Your task to perform on an android device: toggle show notifications on the lock screen Image 0: 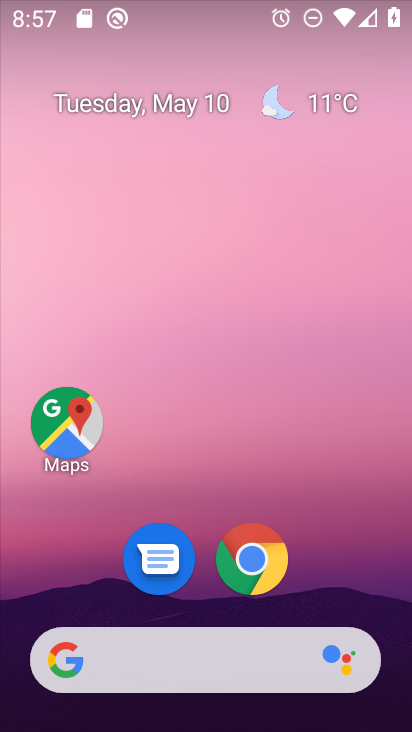
Step 0: drag from (214, 726) to (220, 121)
Your task to perform on an android device: toggle show notifications on the lock screen Image 1: 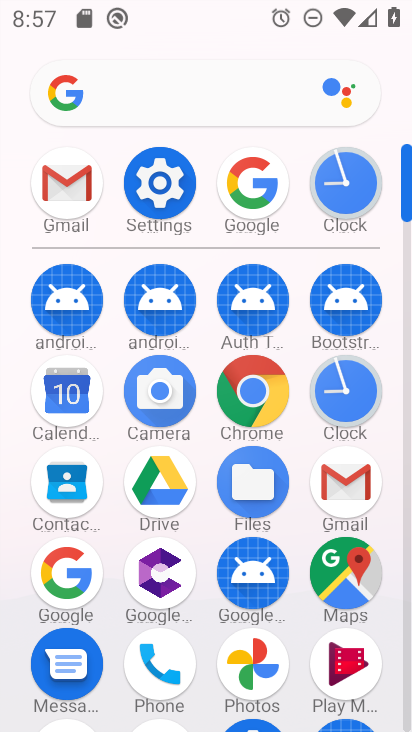
Step 1: click (151, 186)
Your task to perform on an android device: toggle show notifications on the lock screen Image 2: 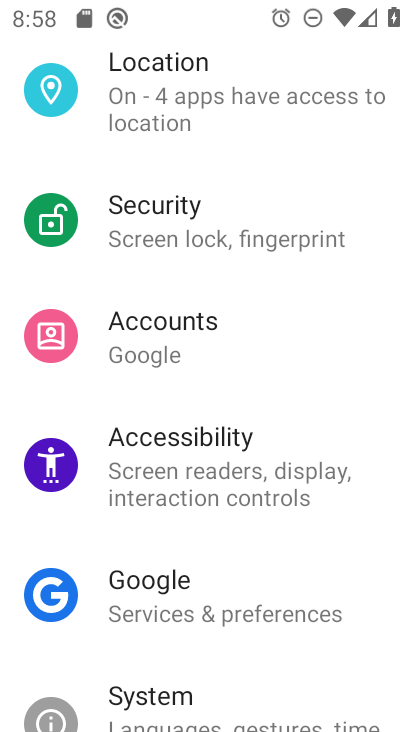
Step 2: drag from (226, 197) to (247, 529)
Your task to perform on an android device: toggle show notifications on the lock screen Image 3: 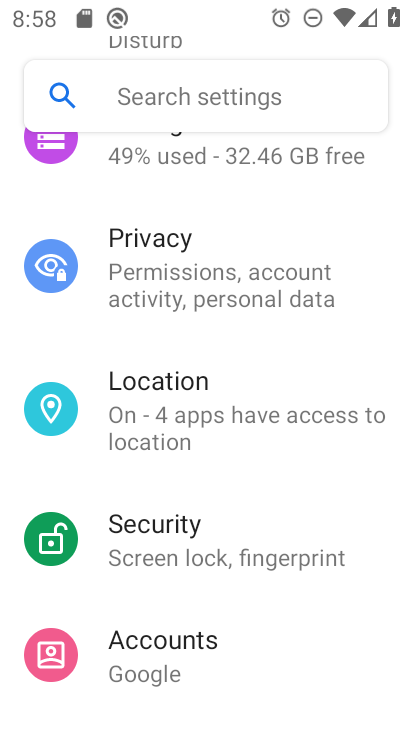
Step 3: drag from (278, 221) to (295, 595)
Your task to perform on an android device: toggle show notifications on the lock screen Image 4: 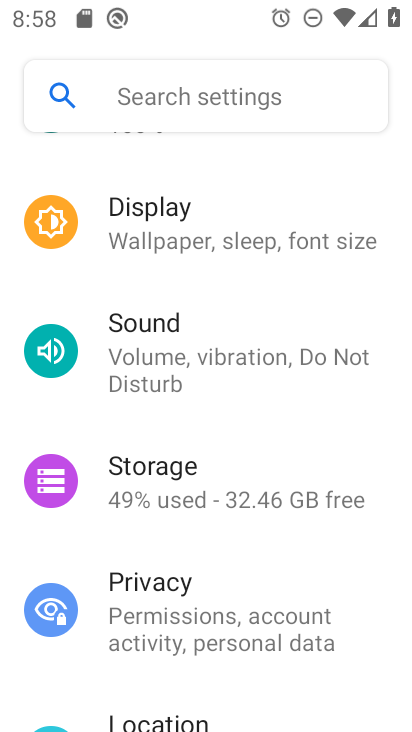
Step 4: drag from (287, 202) to (286, 593)
Your task to perform on an android device: toggle show notifications on the lock screen Image 5: 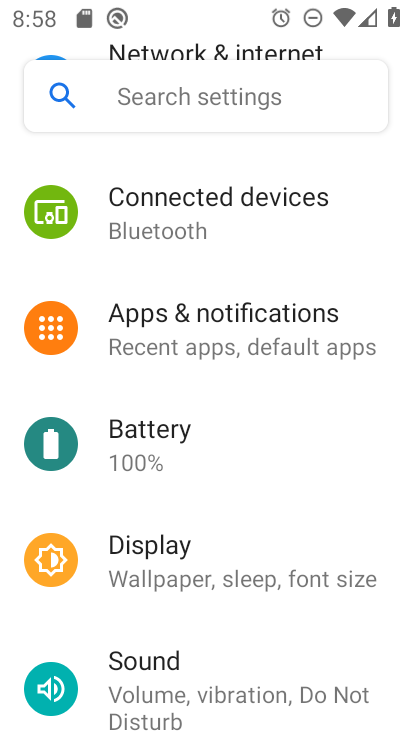
Step 5: click (231, 326)
Your task to perform on an android device: toggle show notifications on the lock screen Image 6: 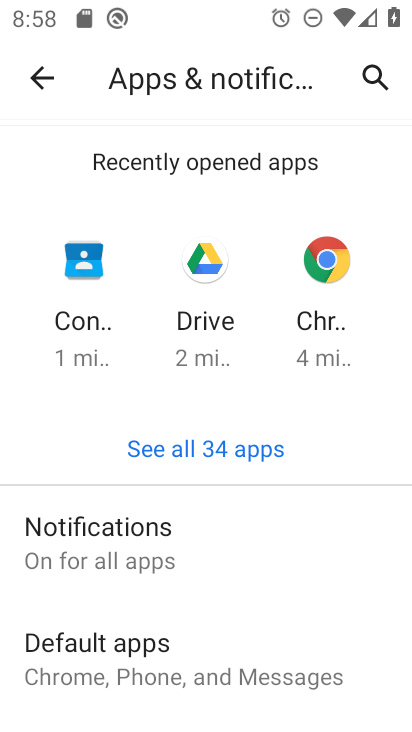
Step 6: drag from (215, 638) to (225, 534)
Your task to perform on an android device: toggle show notifications on the lock screen Image 7: 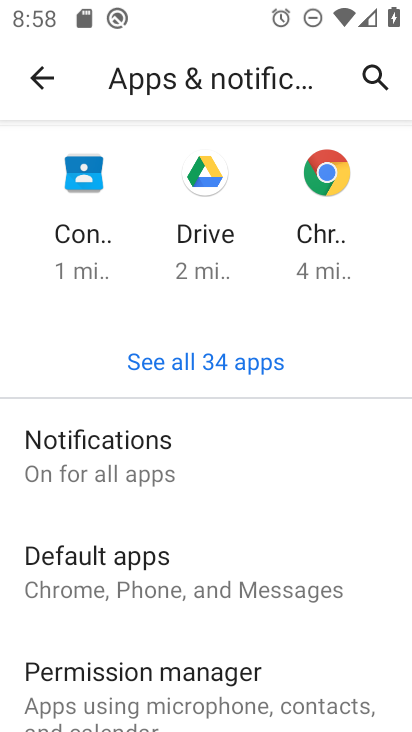
Step 7: click (121, 460)
Your task to perform on an android device: toggle show notifications on the lock screen Image 8: 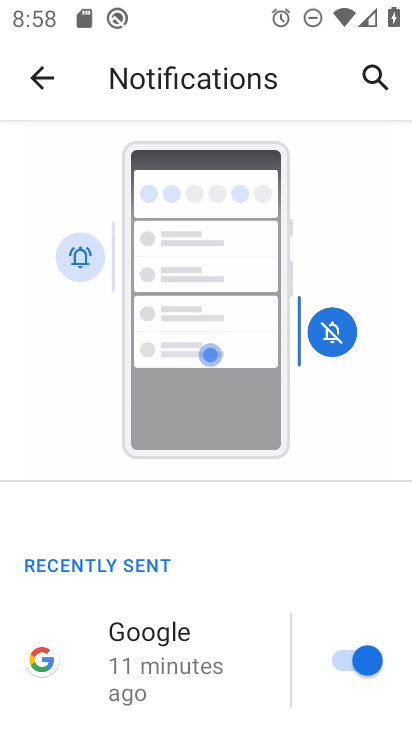
Step 8: drag from (220, 704) to (234, 298)
Your task to perform on an android device: toggle show notifications on the lock screen Image 9: 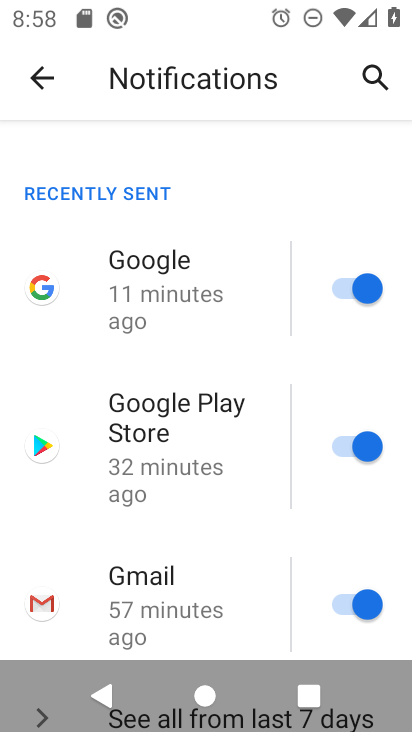
Step 9: drag from (230, 646) to (237, 300)
Your task to perform on an android device: toggle show notifications on the lock screen Image 10: 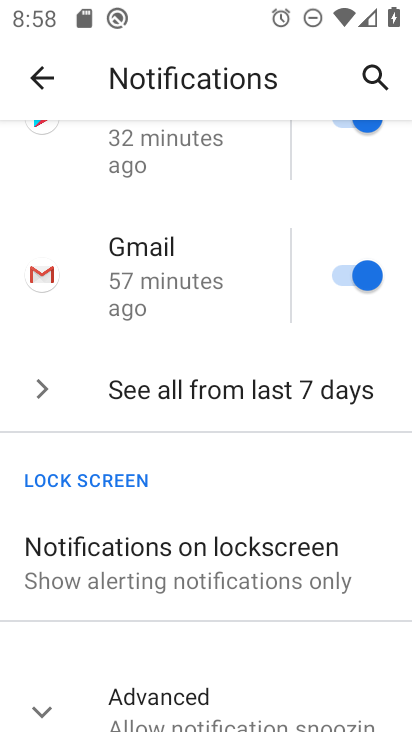
Step 10: click (189, 564)
Your task to perform on an android device: toggle show notifications on the lock screen Image 11: 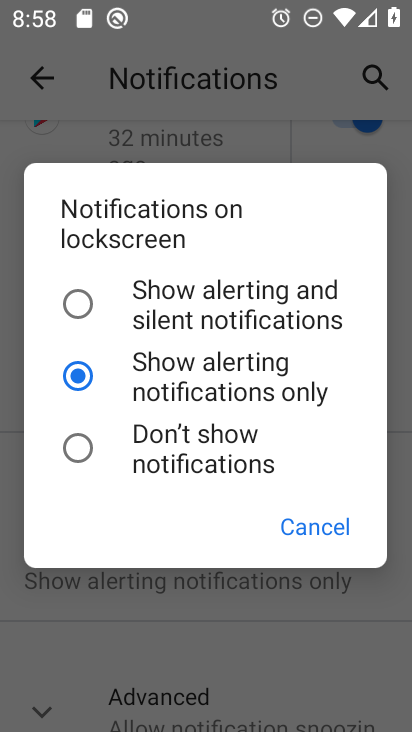
Step 11: click (90, 304)
Your task to perform on an android device: toggle show notifications on the lock screen Image 12: 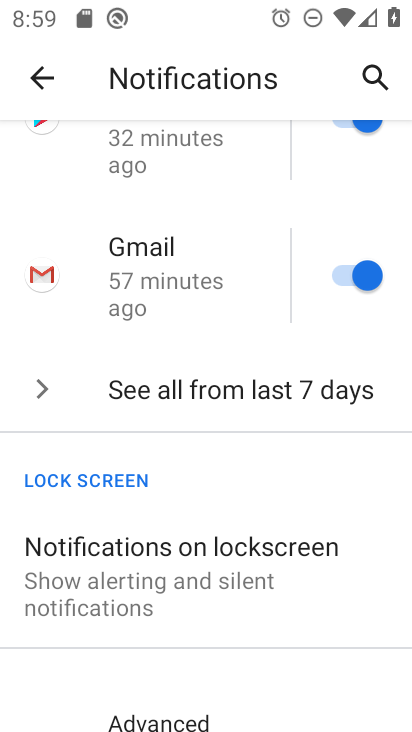
Step 12: task complete